Your task to perform on an android device: Open Google Chrome and click the shortcut for Amazon.com Image 0: 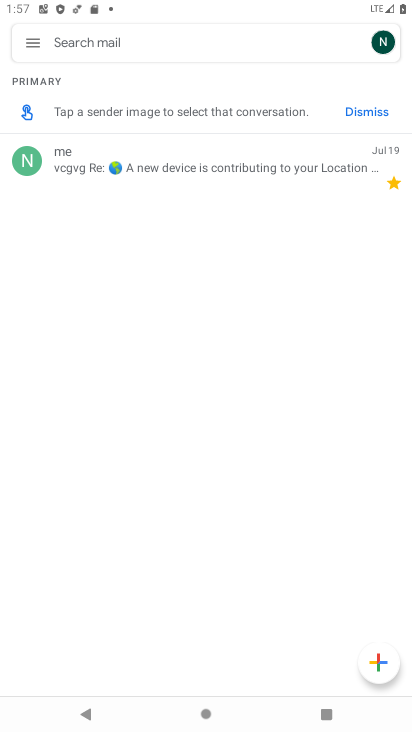
Step 0: press home button
Your task to perform on an android device: Open Google Chrome and click the shortcut for Amazon.com Image 1: 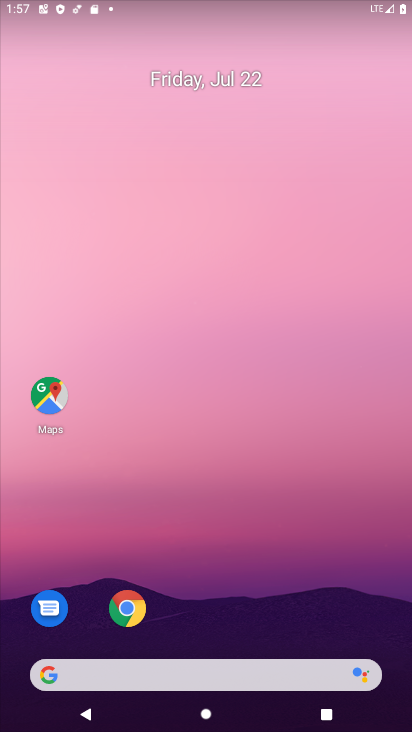
Step 1: drag from (260, 730) to (246, 296)
Your task to perform on an android device: Open Google Chrome and click the shortcut for Amazon.com Image 2: 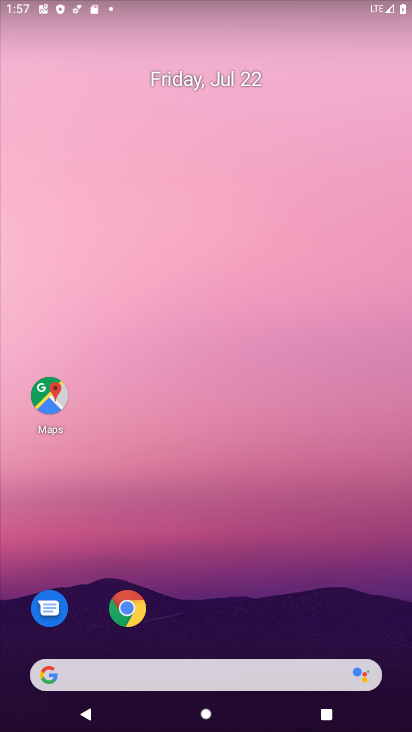
Step 2: click (128, 609)
Your task to perform on an android device: Open Google Chrome and click the shortcut for Amazon.com Image 3: 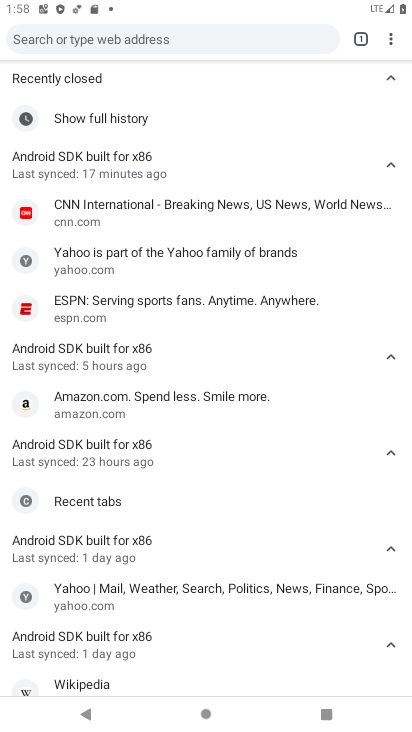
Step 3: click (387, 41)
Your task to perform on an android device: Open Google Chrome and click the shortcut for Amazon.com Image 4: 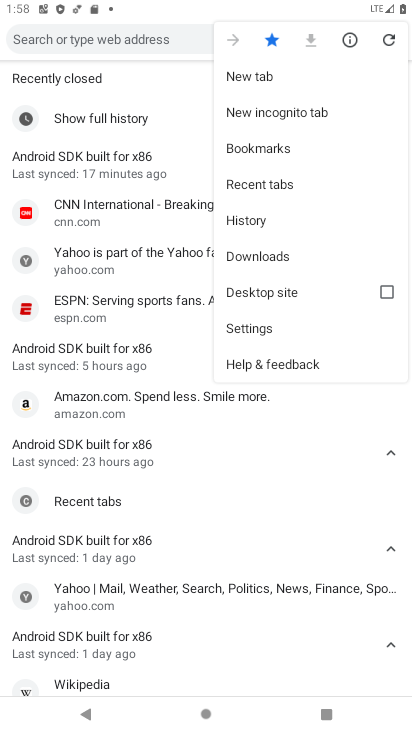
Step 4: click (267, 76)
Your task to perform on an android device: Open Google Chrome and click the shortcut for Amazon.com Image 5: 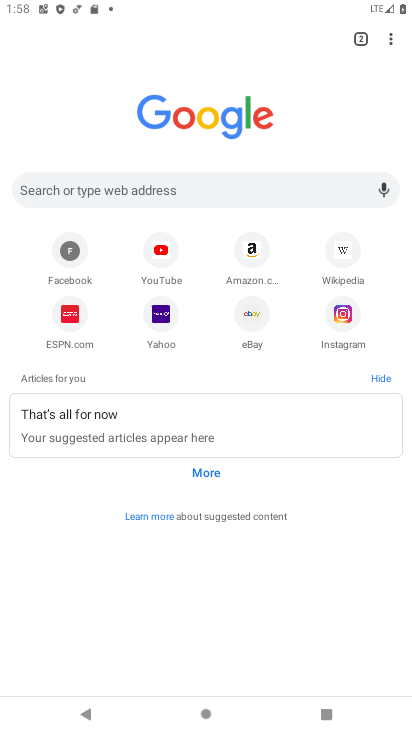
Step 5: click (251, 254)
Your task to perform on an android device: Open Google Chrome and click the shortcut for Amazon.com Image 6: 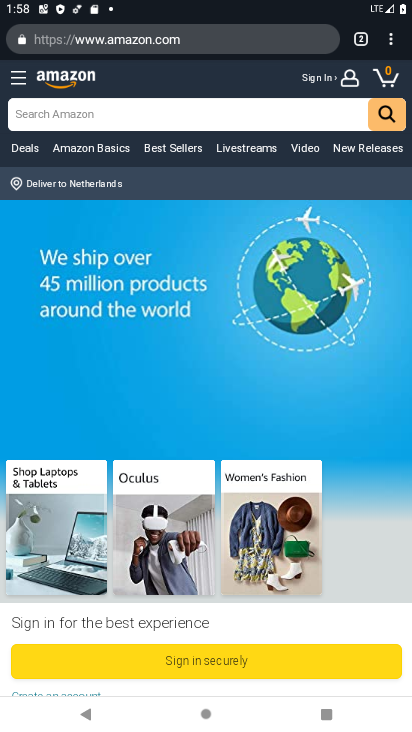
Step 6: task complete